Your task to perform on an android device: open sync settings in chrome Image 0: 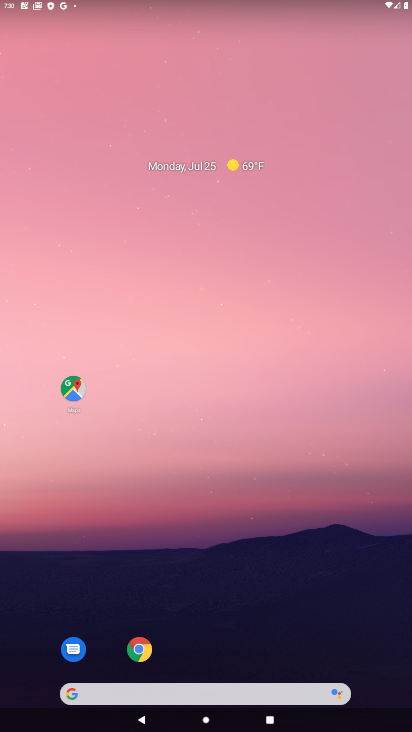
Step 0: drag from (225, 541) to (134, 50)
Your task to perform on an android device: open sync settings in chrome Image 1: 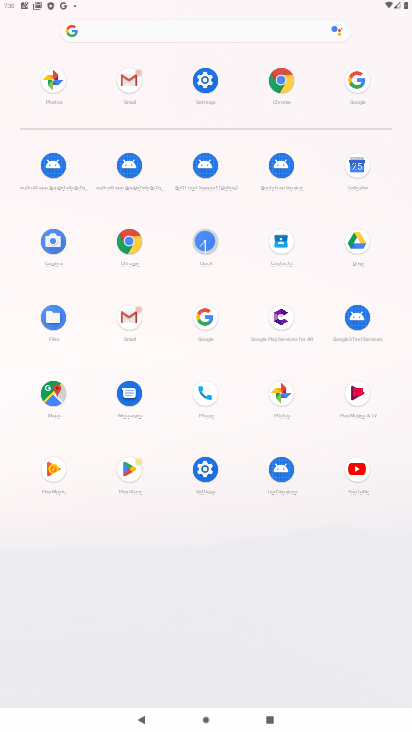
Step 1: click (199, 84)
Your task to perform on an android device: open sync settings in chrome Image 2: 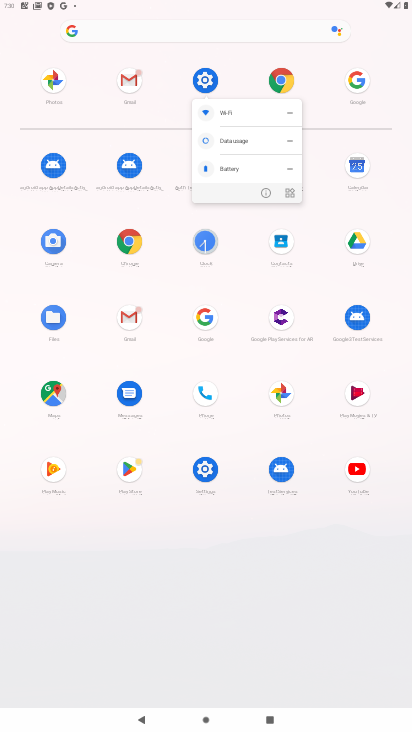
Step 2: click (199, 83)
Your task to perform on an android device: open sync settings in chrome Image 3: 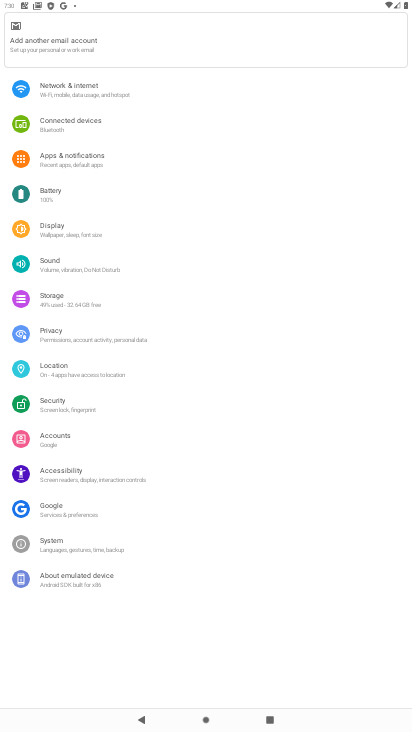
Step 3: press home button
Your task to perform on an android device: open sync settings in chrome Image 4: 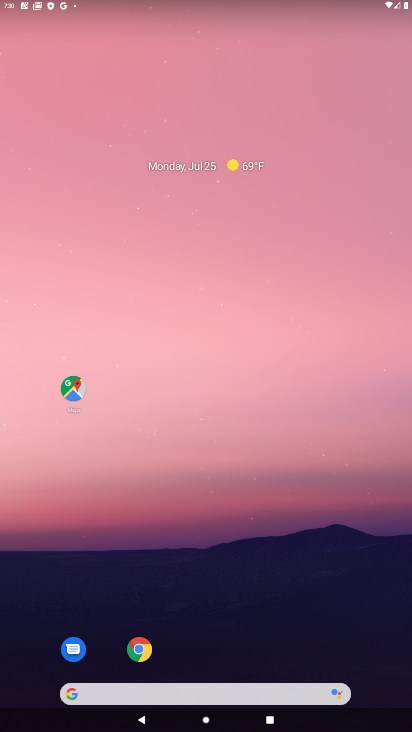
Step 4: drag from (198, 342) to (168, 118)
Your task to perform on an android device: open sync settings in chrome Image 5: 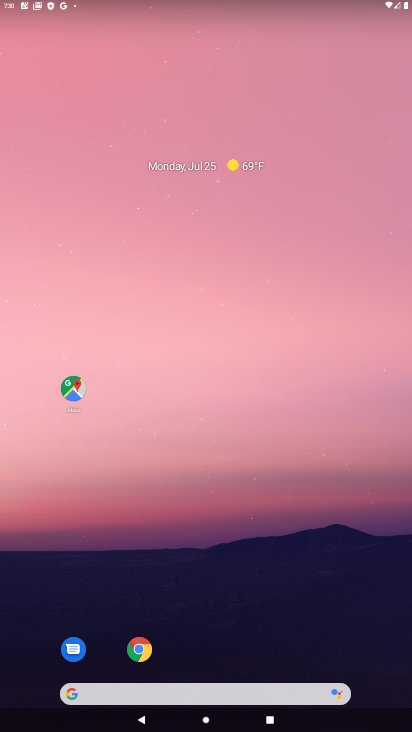
Step 5: drag from (220, 684) to (176, 120)
Your task to perform on an android device: open sync settings in chrome Image 6: 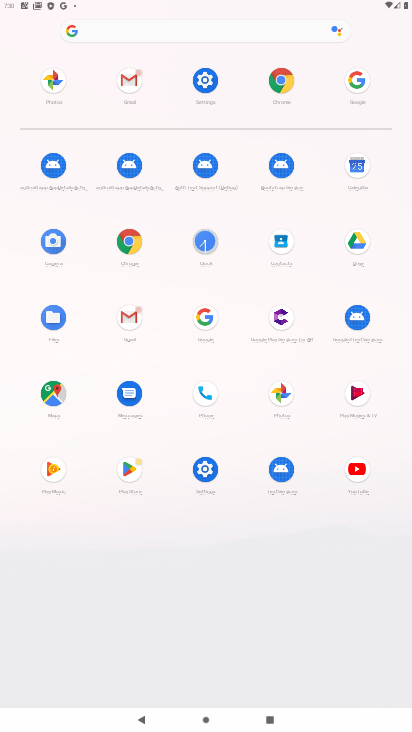
Step 6: click (277, 90)
Your task to perform on an android device: open sync settings in chrome Image 7: 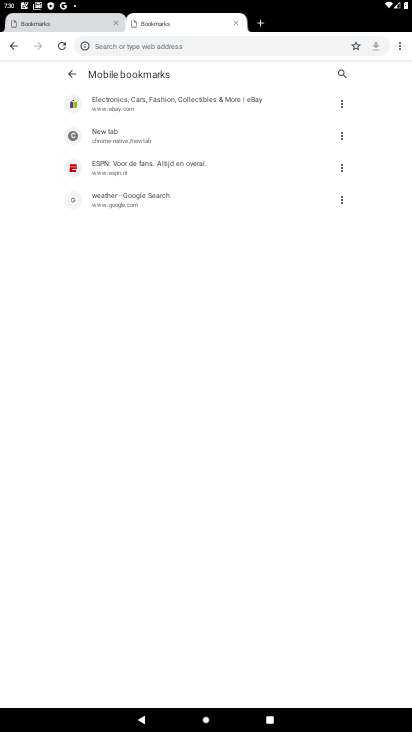
Step 7: drag from (400, 47) to (286, 210)
Your task to perform on an android device: open sync settings in chrome Image 8: 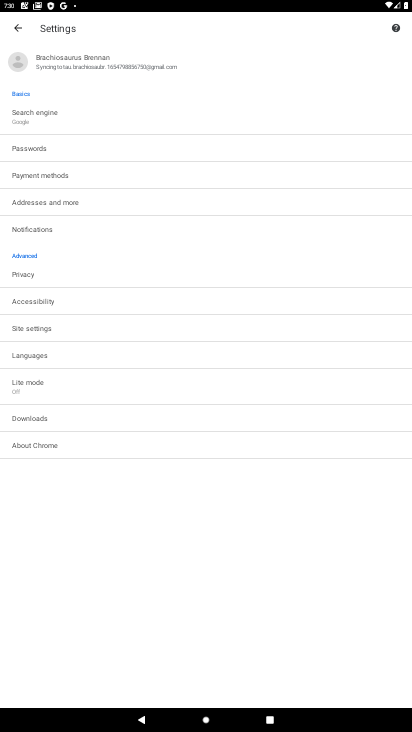
Step 8: click (62, 331)
Your task to perform on an android device: open sync settings in chrome Image 9: 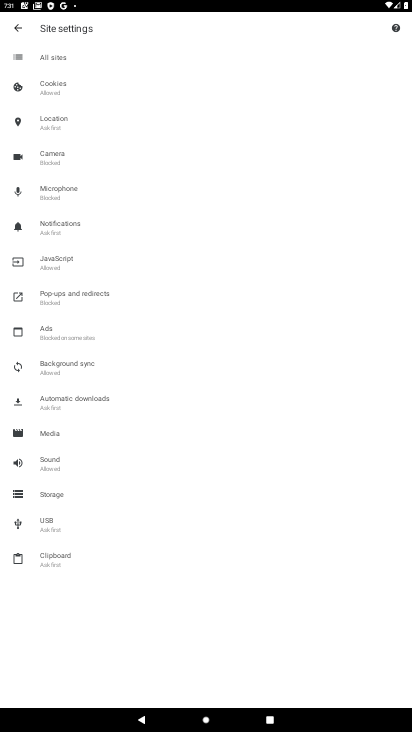
Step 9: click (70, 369)
Your task to perform on an android device: open sync settings in chrome Image 10: 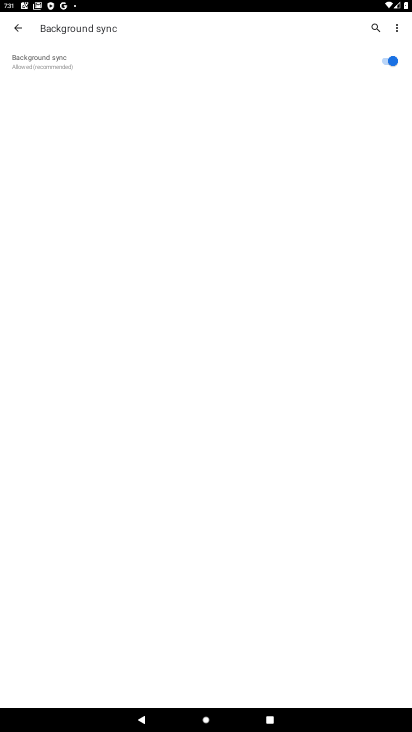
Step 10: task complete